Your task to perform on an android device: choose inbox layout in the gmail app Image 0: 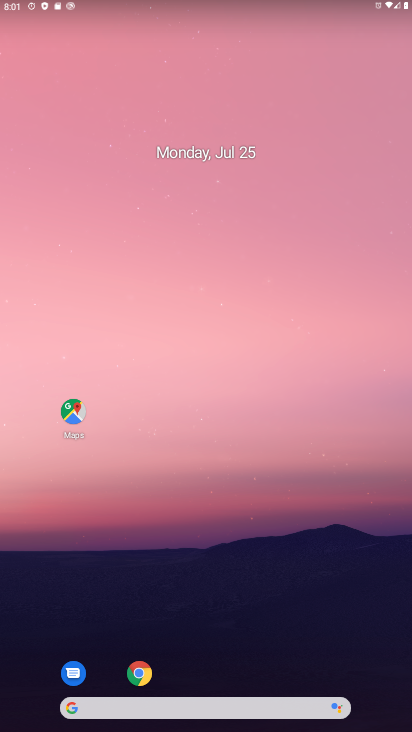
Step 0: drag from (342, 650) to (81, 73)
Your task to perform on an android device: choose inbox layout in the gmail app Image 1: 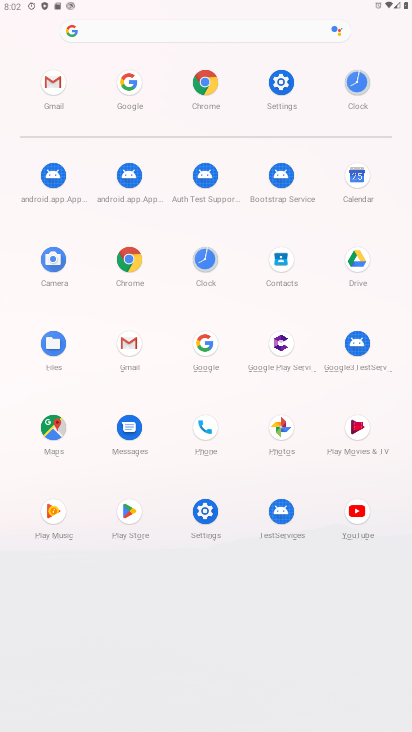
Step 1: click (119, 352)
Your task to perform on an android device: choose inbox layout in the gmail app Image 2: 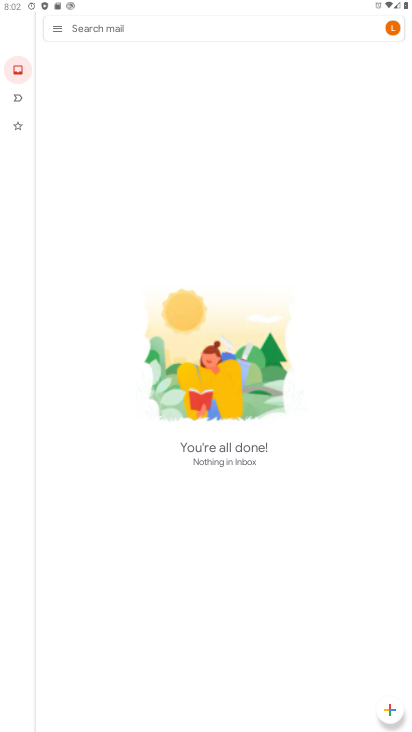
Step 2: task complete